Your task to perform on an android device: turn pop-ups off in chrome Image 0: 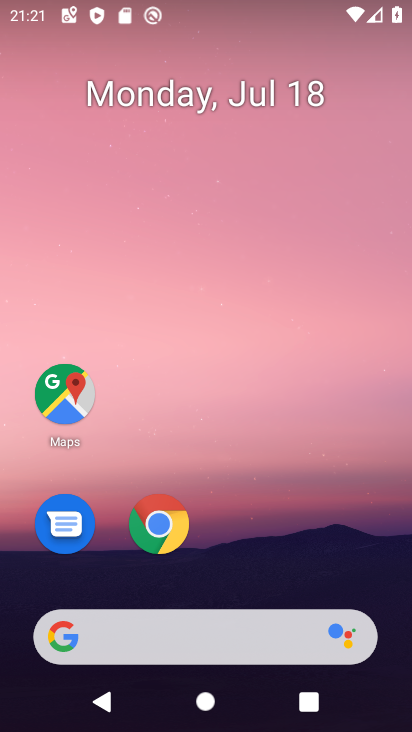
Step 0: click (153, 526)
Your task to perform on an android device: turn pop-ups off in chrome Image 1: 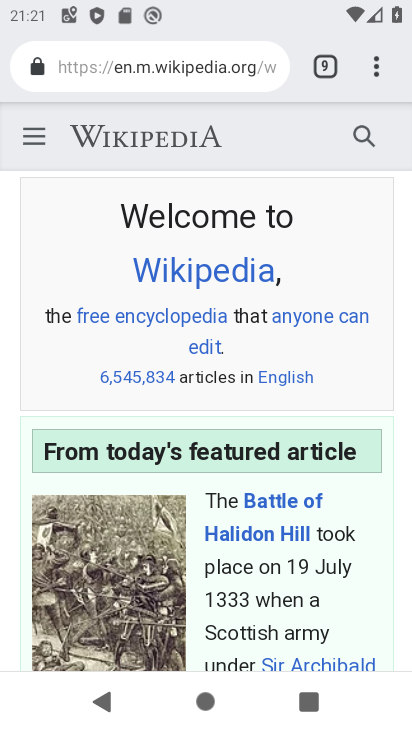
Step 1: click (374, 61)
Your task to perform on an android device: turn pop-ups off in chrome Image 2: 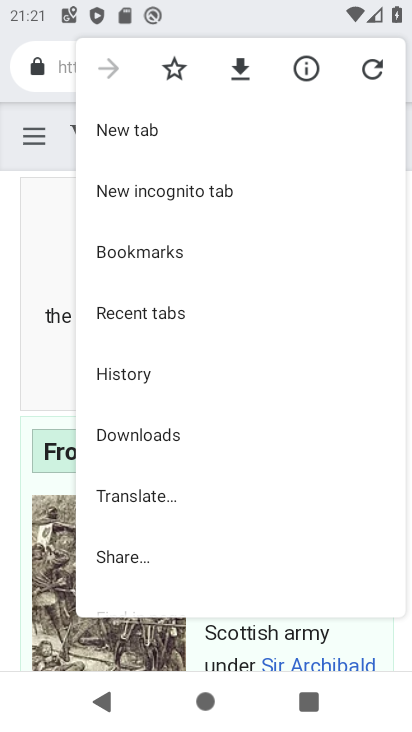
Step 2: drag from (217, 413) to (249, 119)
Your task to perform on an android device: turn pop-ups off in chrome Image 3: 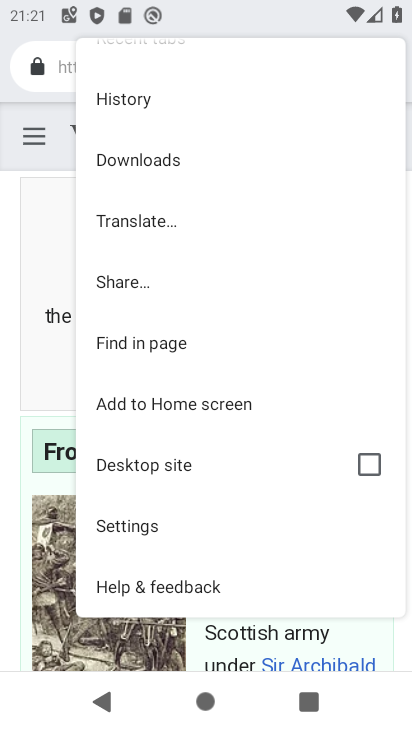
Step 3: click (138, 529)
Your task to perform on an android device: turn pop-ups off in chrome Image 4: 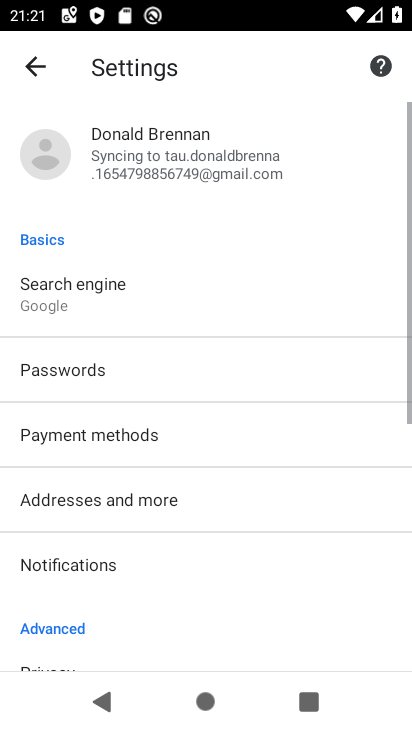
Step 4: drag from (234, 574) to (249, 182)
Your task to perform on an android device: turn pop-ups off in chrome Image 5: 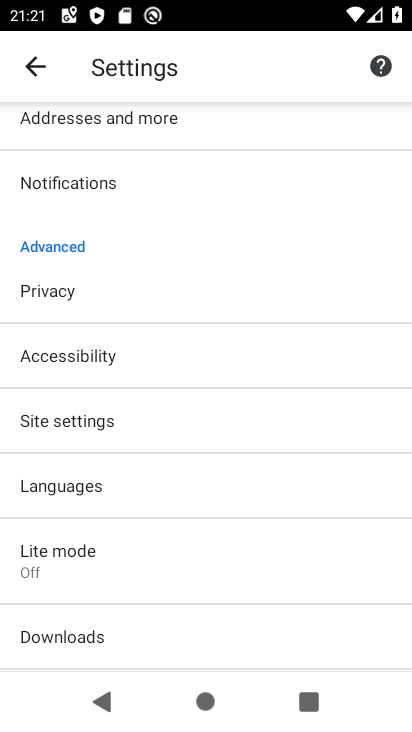
Step 5: click (149, 428)
Your task to perform on an android device: turn pop-ups off in chrome Image 6: 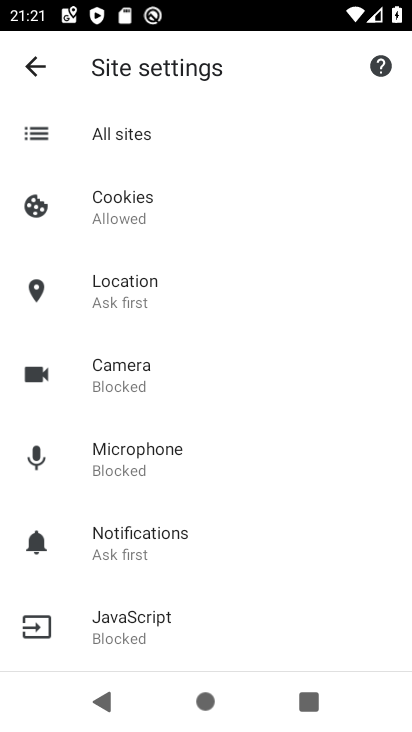
Step 6: drag from (241, 490) to (251, 282)
Your task to perform on an android device: turn pop-ups off in chrome Image 7: 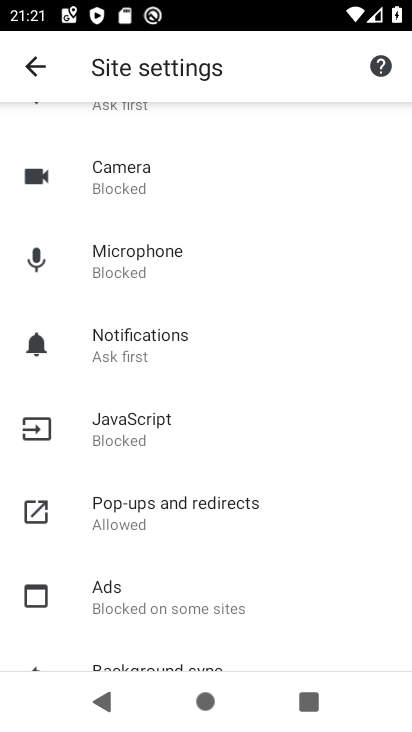
Step 7: click (210, 506)
Your task to perform on an android device: turn pop-ups off in chrome Image 8: 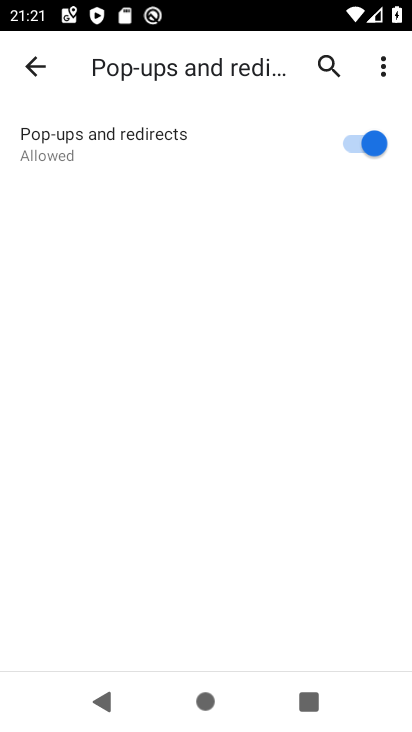
Step 8: click (363, 140)
Your task to perform on an android device: turn pop-ups off in chrome Image 9: 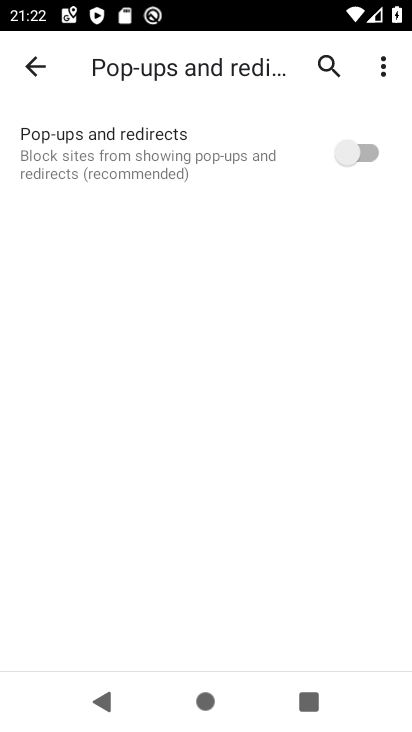
Step 9: task complete